Your task to perform on an android device: Open the stopwatch Image 0: 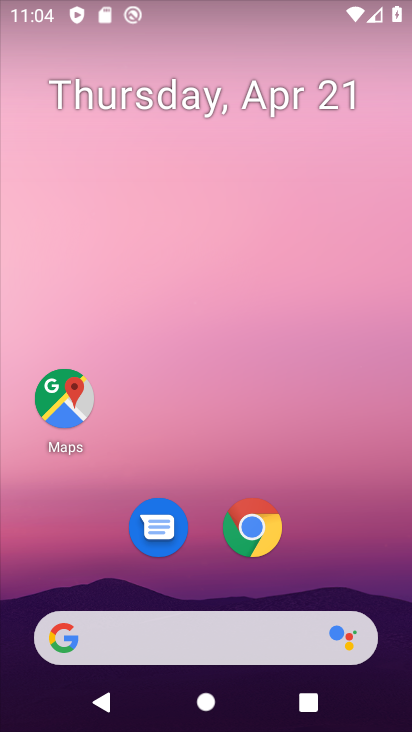
Step 0: drag from (232, 537) to (400, 618)
Your task to perform on an android device: Open the stopwatch Image 1: 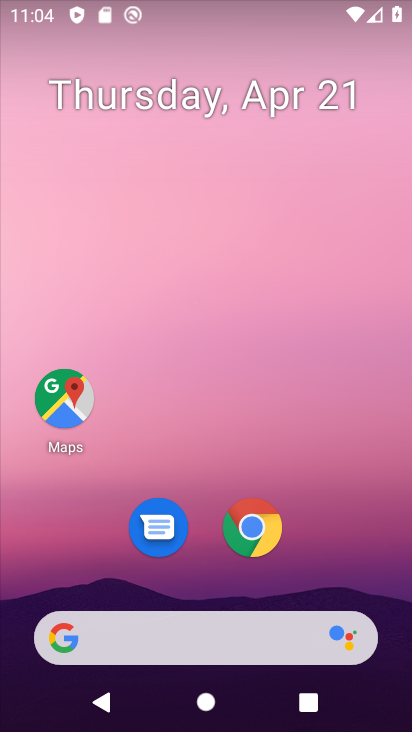
Step 1: drag from (258, 594) to (353, 368)
Your task to perform on an android device: Open the stopwatch Image 2: 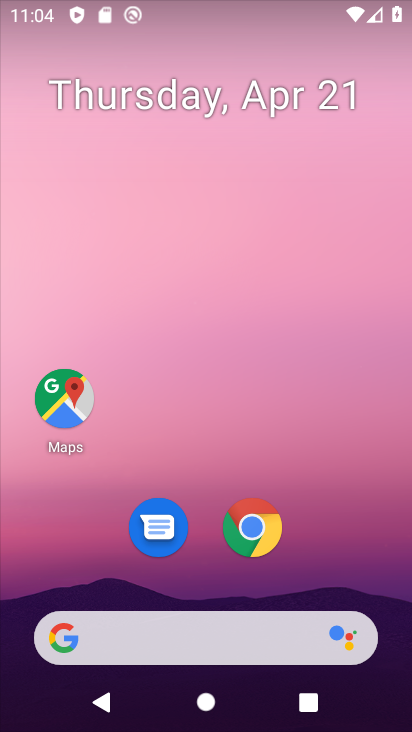
Step 2: drag from (199, 561) to (189, 1)
Your task to perform on an android device: Open the stopwatch Image 3: 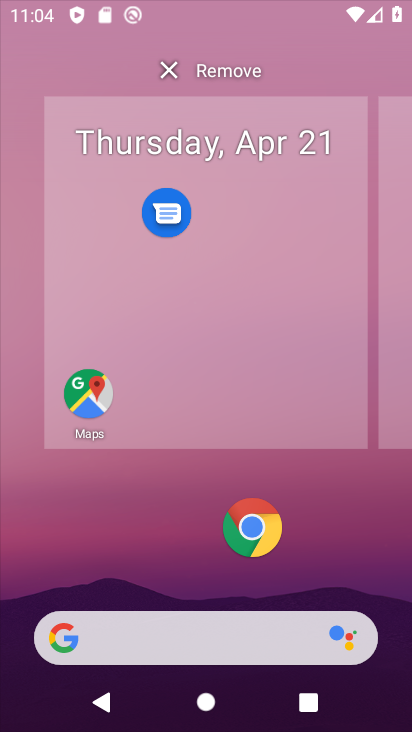
Step 3: drag from (213, 587) to (260, 0)
Your task to perform on an android device: Open the stopwatch Image 4: 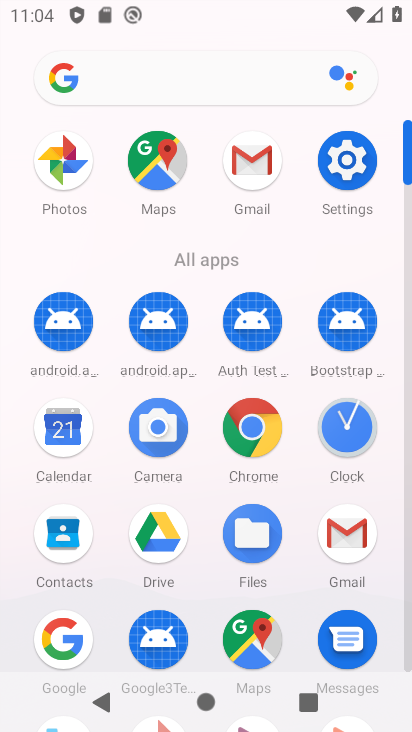
Step 4: click (362, 421)
Your task to perform on an android device: Open the stopwatch Image 5: 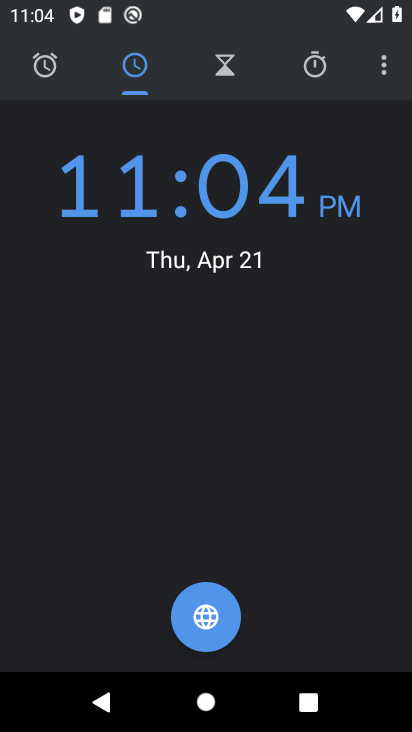
Step 5: click (303, 76)
Your task to perform on an android device: Open the stopwatch Image 6: 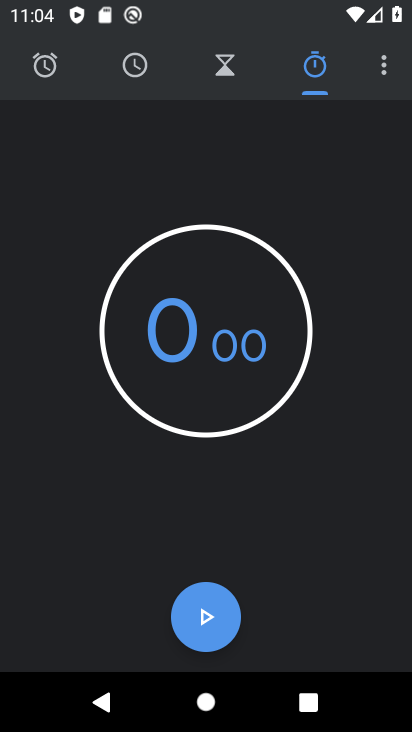
Step 6: task complete